Your task to perform on an android device: Go to display settings Image 0: 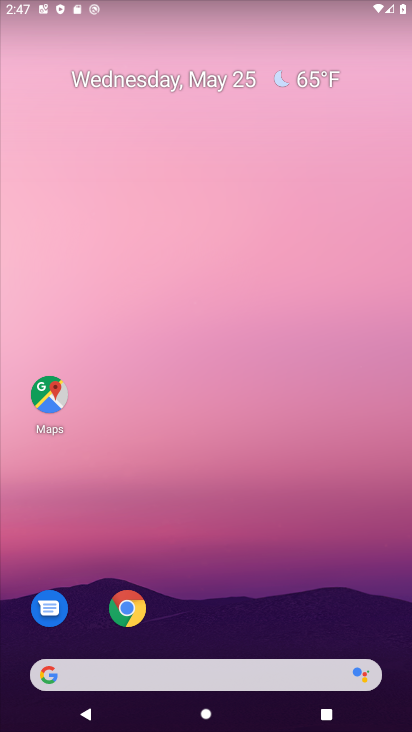
Step 0: drag from (317, 645) to (326, 17)
Your task to perform on an android device: Go to display settings Image 1: 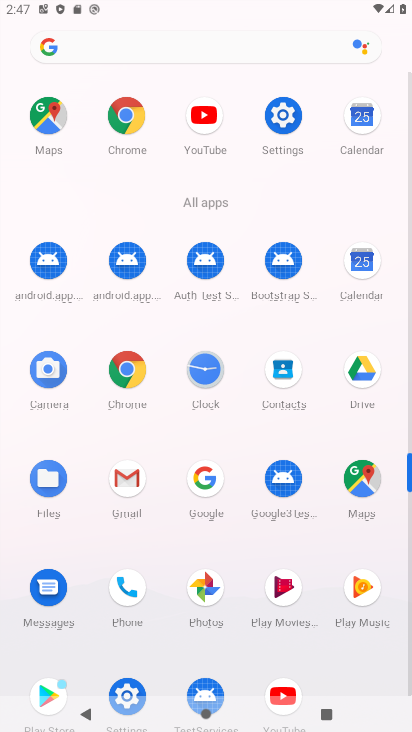
Step 1: click (274, 117)
Your task to perform on an android device: Go to display settings Image 2: 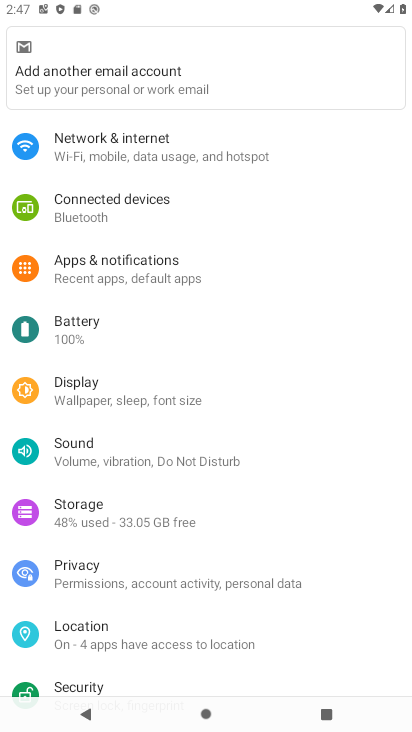
Step 2: click (99, 400)
Your task to perform on an android device: Go to display settings Image 3: 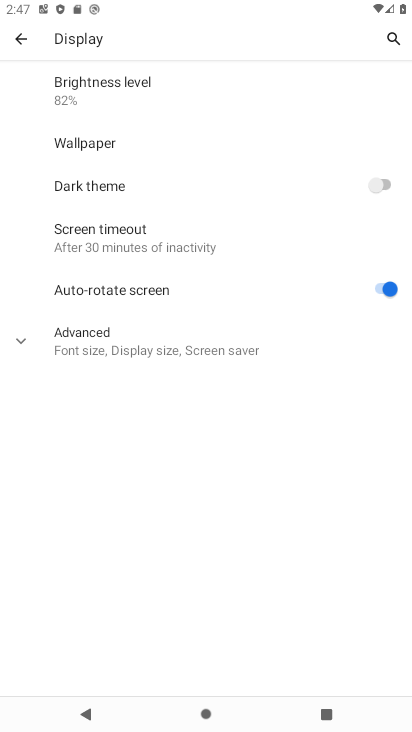
Step 3: task complete